Your task to perform on an android device: toggle location history Image 0: 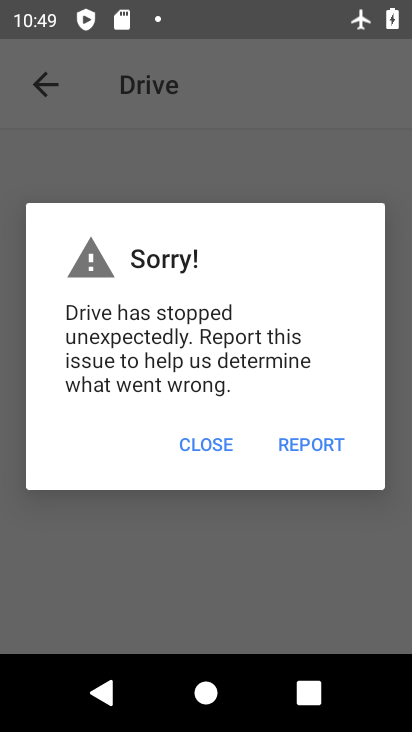
Step 0: press back button
Your task to perform on an android device: toggle location history Image 1: 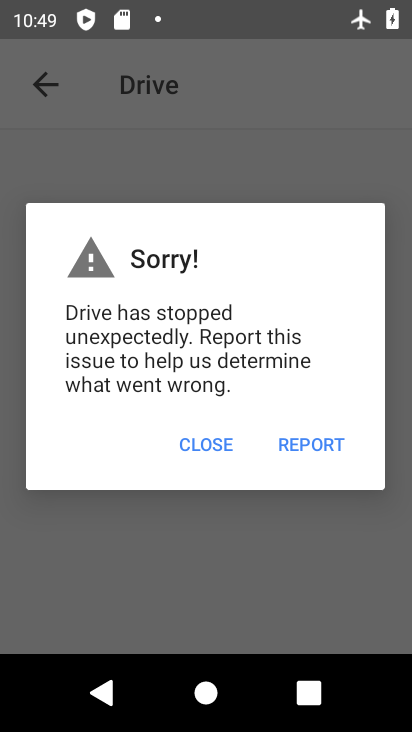
Step 1: press back button
Your task to perform on an android device: toggle location history Image 2: 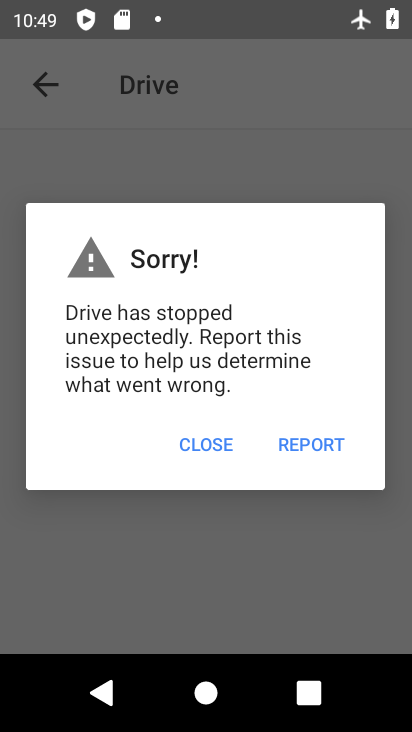
Step 2: press home button
Your task to perform on an android device: toggle location history Image 3: 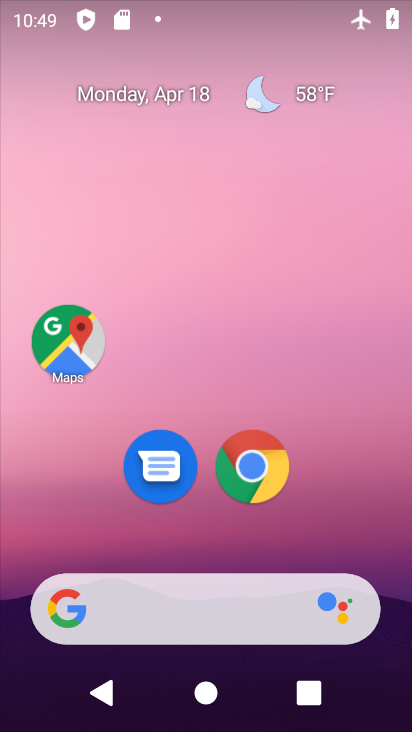
Step 3: click (162, 600)
Your task to perform on an android device: toggle location history Image 4: 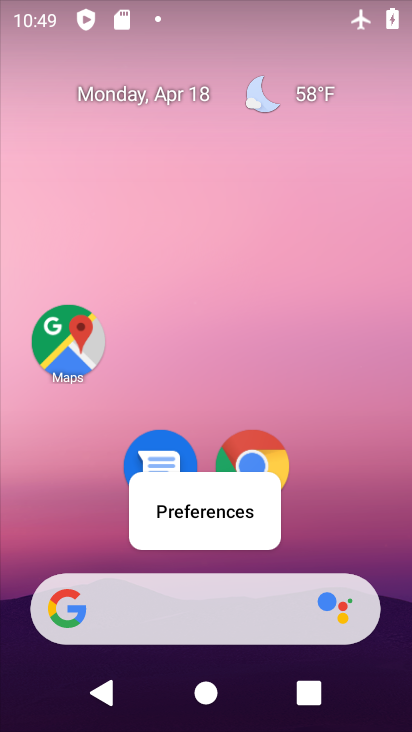
Step 4: click (172, 591)
Your task to perform on an android device: toggle location history Image 5: 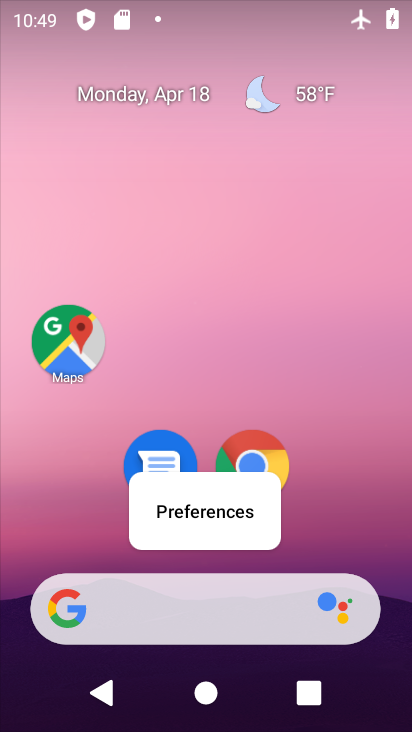
Step 5: drag from (66, 592) to (61, 152)
Your task to perform on an android device: toggle location history Image 6: 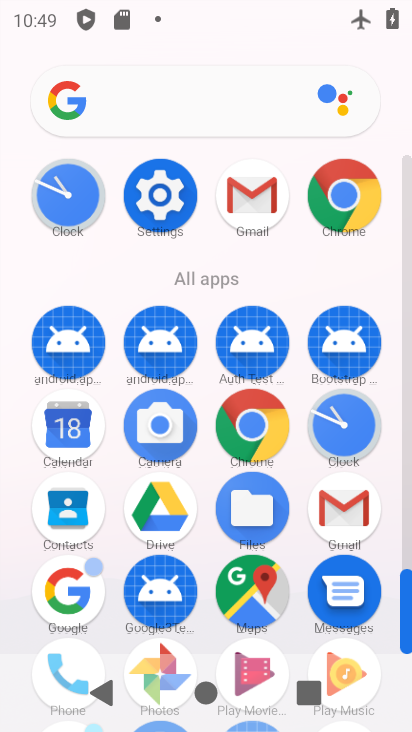
Step 6: click (166, 218)
Your task to perform on an android device: toggle location history Image 7: 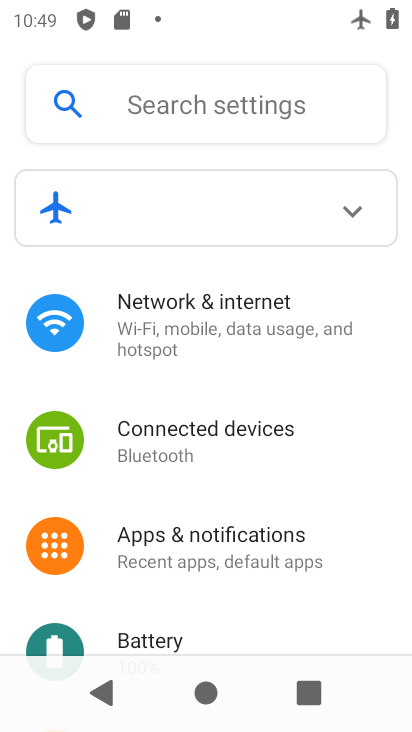
Step 7: drag from (123, 472) to (116, 16)
Your task to perform on an android device: toggle location history Image 8: 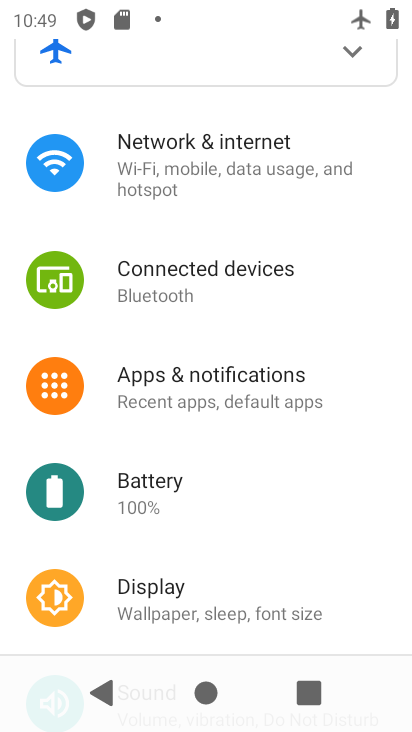
Step 8: drag from (153, 530) to (152, 88)
Your task to perform on an android device: toggle location history Image 9: 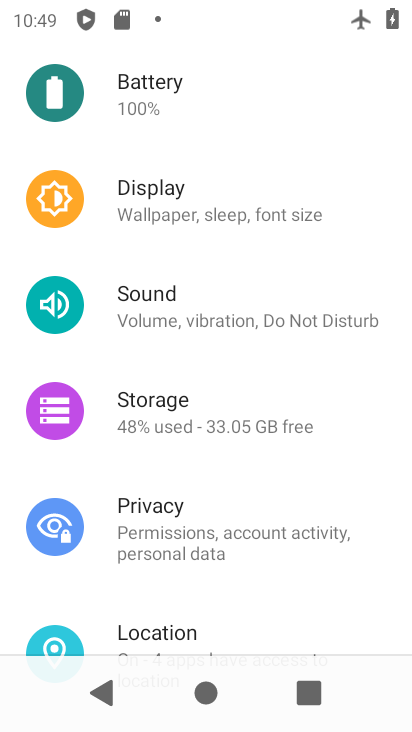
Step 9: click (167, 635)
Your task to perform on an android device: toggle location history Image 10: 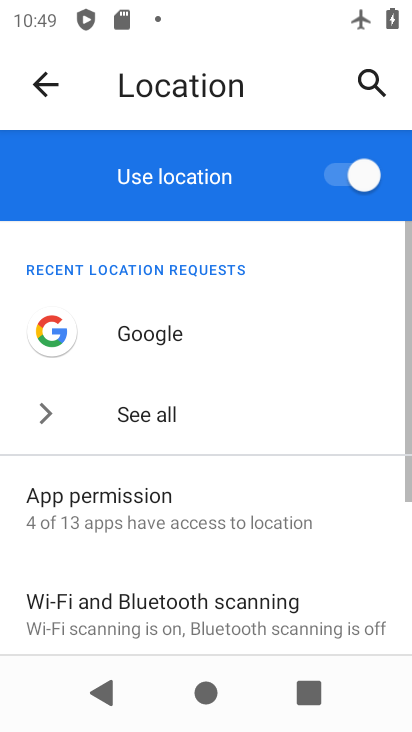
Step 10: drag from (157, 593) to (106, 181)
Your task to perform on an android device: toggle location history Image 11: 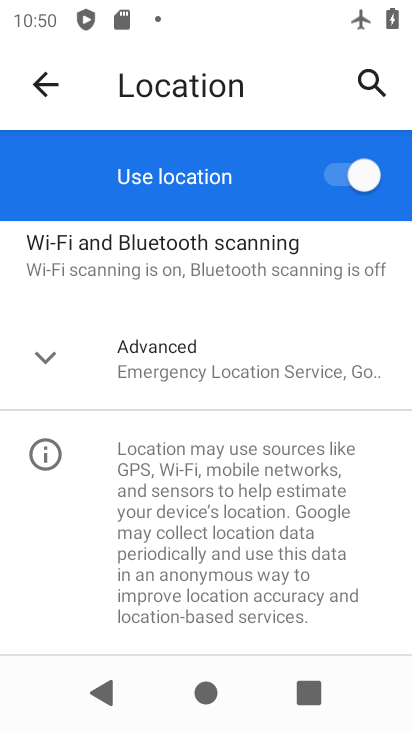
Step 11: click (150, 391)
Your task to perform on an android device: toggle location history Image 12: 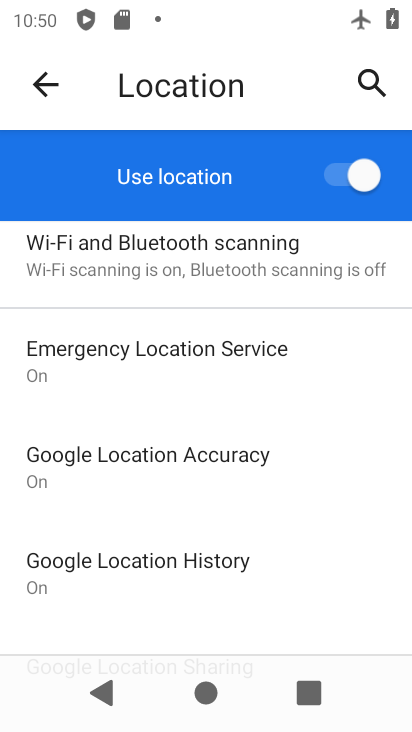
Step 12: click (115, 567)
Your task to perform on an android device: toggle location history Image 13: 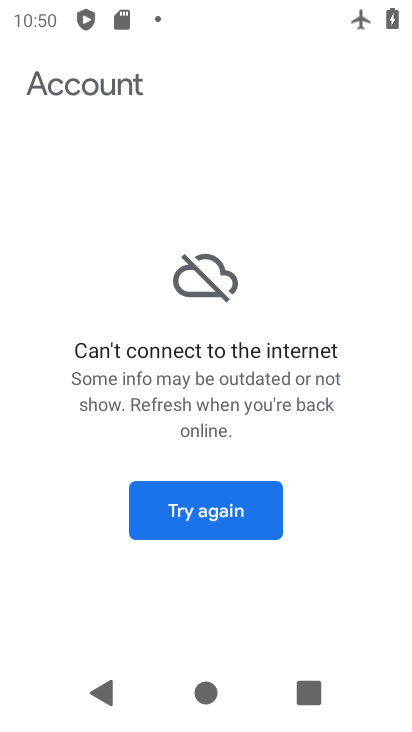
Step 13: task complete